Your task to perform on an android device: open a bookmark in the chrome app Image 0: 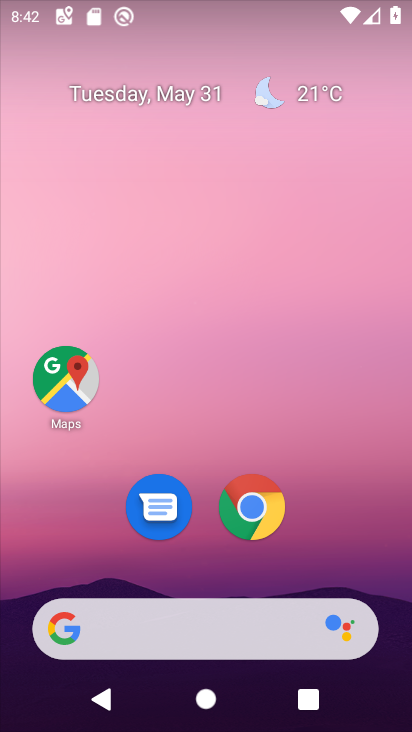
Step 0: drag from (278, 702) to (410, 453)
Your task to perform on an android device: open a bookmark in the chrome app Image 1: 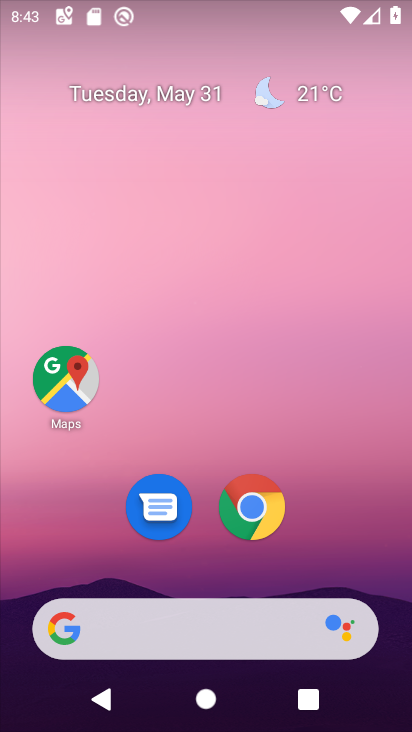
Step 1: drag from (214, 555) to (112, 98)
Your task to perform on an android device: open a bookmark in the chrome app Image 2: 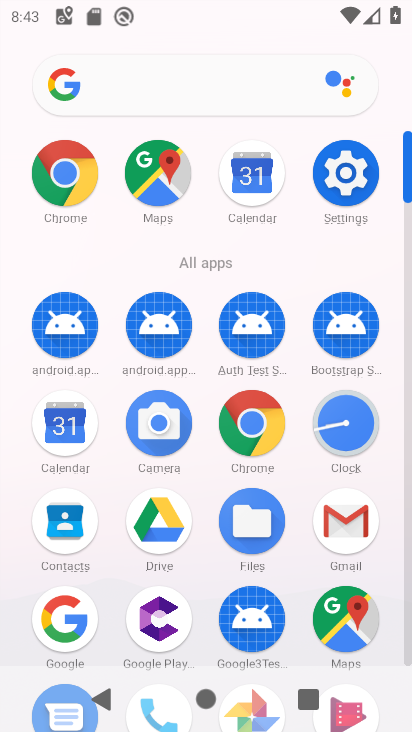
Step 2: click (240, 416)
Your task to perform on an android device: open a bookmark in the chrome app Image 3: 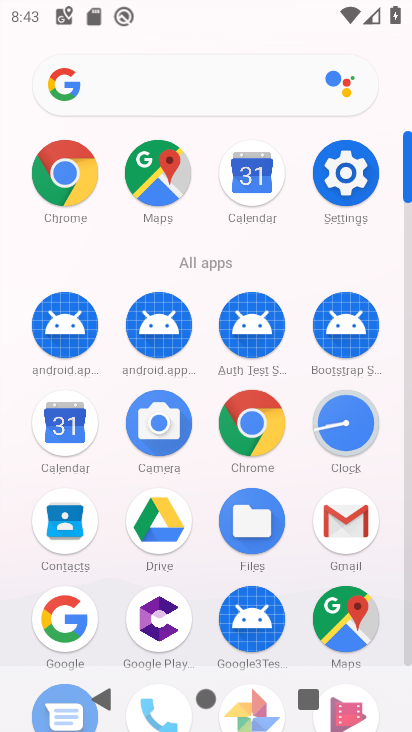
Step 3: click (241, 415)
Your task to perform on an android device: open a bookmark in the chrome app Image 4: 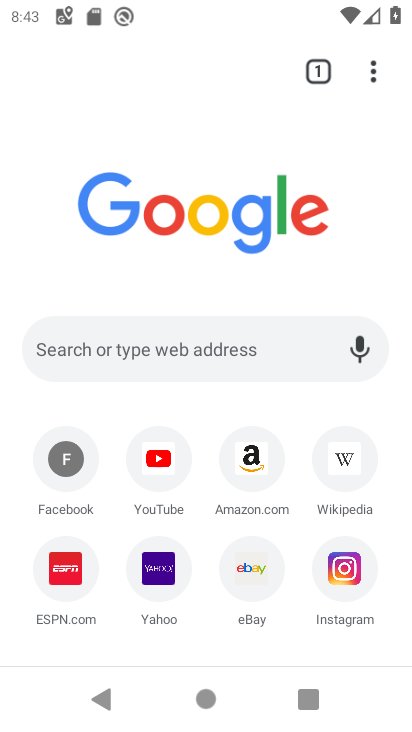
Step 4: drag from (367, 86) to (132, 277)
Your task to perform on an android device: open a bookmark in the chrome app Image 5: 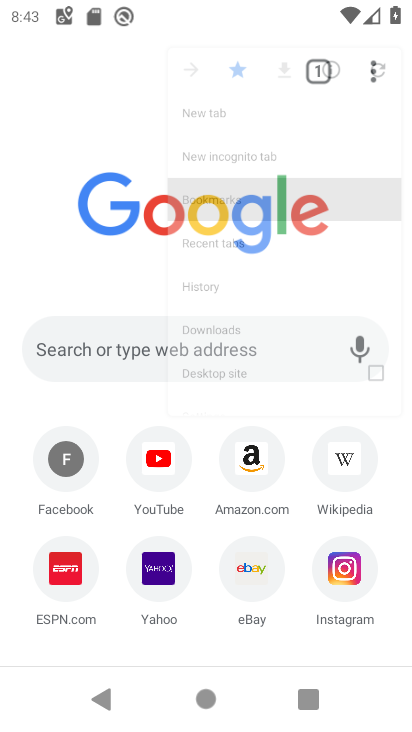
Step 5: click (132, 277)
Your task to perform on an android device: open a bookmark in the chrome app Image 6: 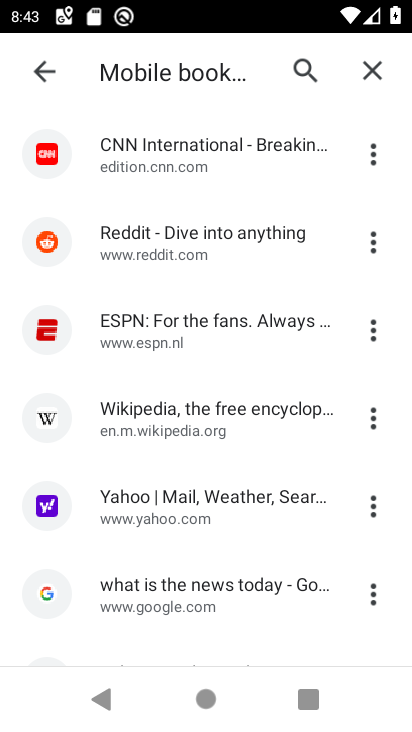
Step 6: task complete